Your task to perform on an android device: What's on my calendar tomorrow? Image 0: 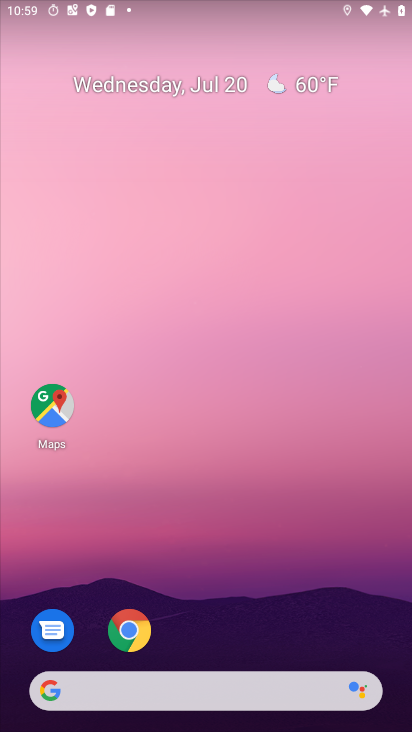
Step 0: drag from (201, 646) to (250, 89)
Your task to perform on an android device: What's on my calendar tomorrow? Image 1: 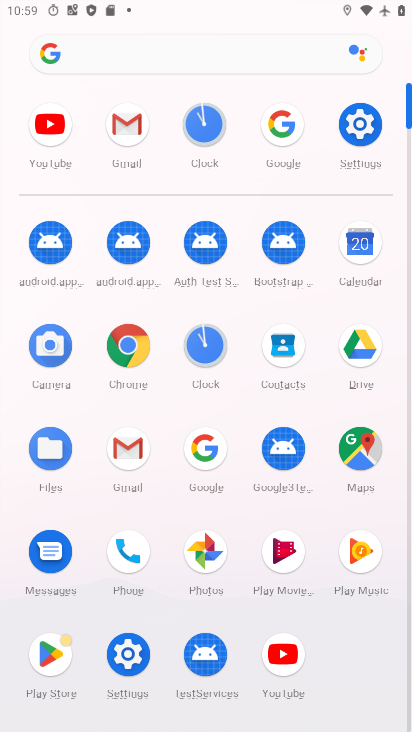
Step 1: click (356, 250)
Your task to perform on an android device: What's on my calendar tomorrow? Image 2: 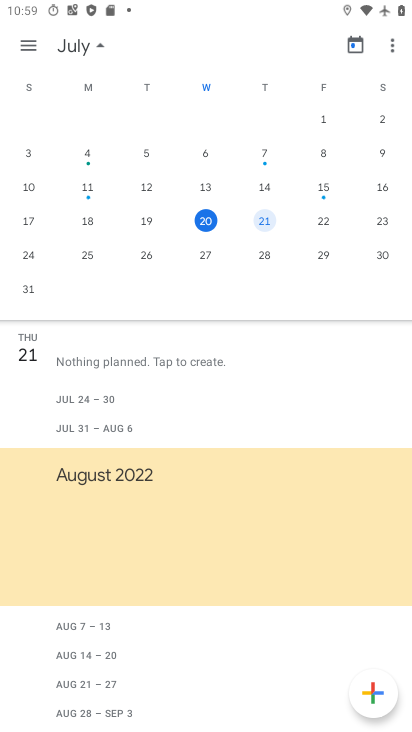
Step 2: click (264, 219)
Your task to perform on an android device: What's on my calendar tomorrow? Image 3: 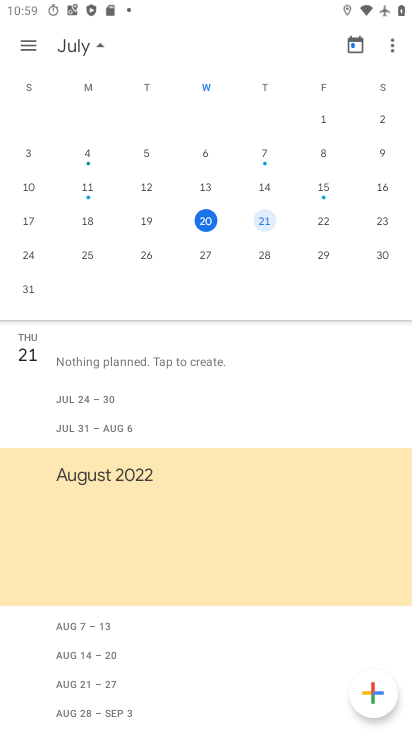
Step 3: task complete